Your task to perform on an android device: turn off notifications in google photos Image 0: 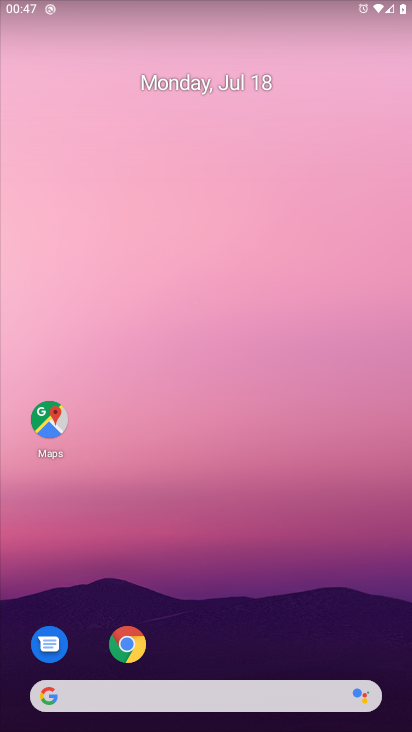
Step 0: press home button
Your task to perform on an android device: turn off notifications in google photos Image 1: 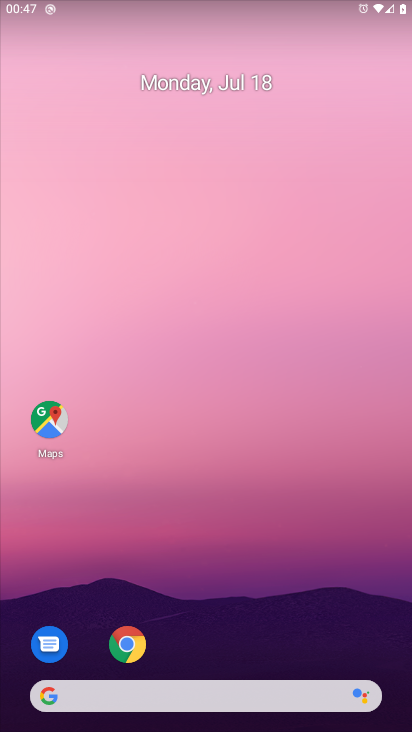
Step 1: drag from (309, 575) to (302, 235)
Your task to perform on an android device: turn off notifications in google photos Image 2: 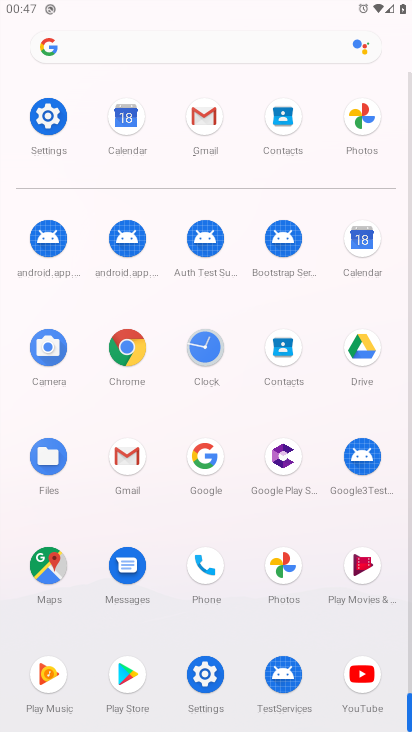
Step 2: click (286, 565)
Your task to perform on an android device: turn off notifications in google photos Image 3: 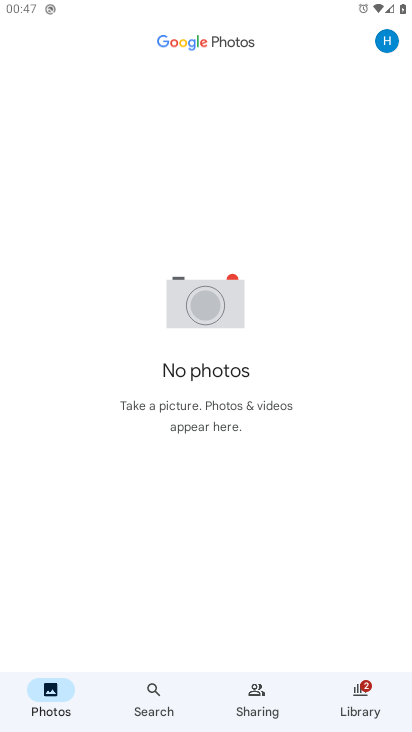
Step 3: click (390, 39)
Your task to perform on an android device: turn off notifications in google photos Image 4: 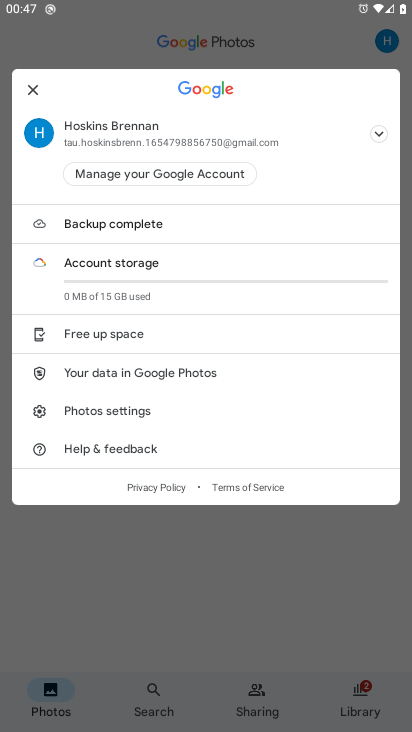
Step 4: click (139, 406)
Your task to perform on an android device: turn off notifications in google photos Image 5: 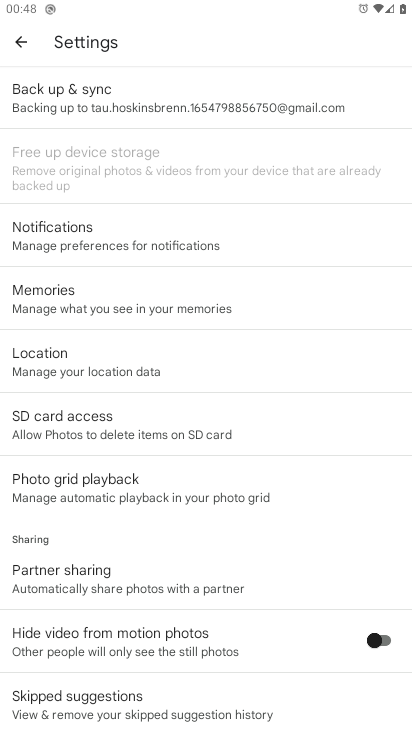
Step 5: click (68, 243)
Your task to perform on an android device: turn off notifications in google photos Image 6: 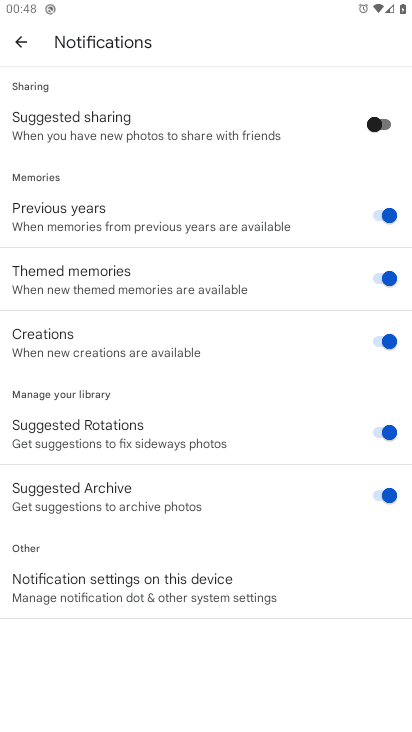
Step 6: click (118, 588)
Your task to perform on an android device: turn off notifications in google photos Image 7: 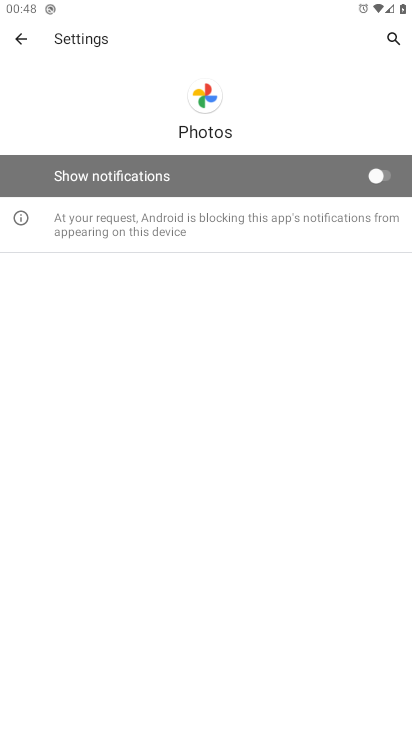
Step 7: task complete